Your task to perform on an android device: toggle data saver in the chrome app Image 0: 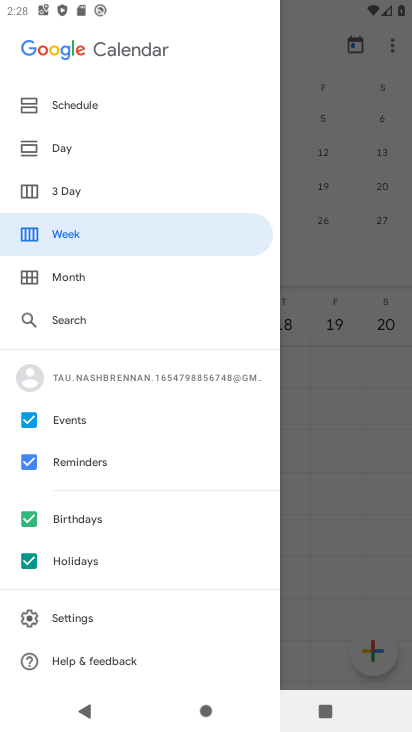
Step 0: press home button
Your task to perform on an android device: toggle data saver in the chrome app Image 1: 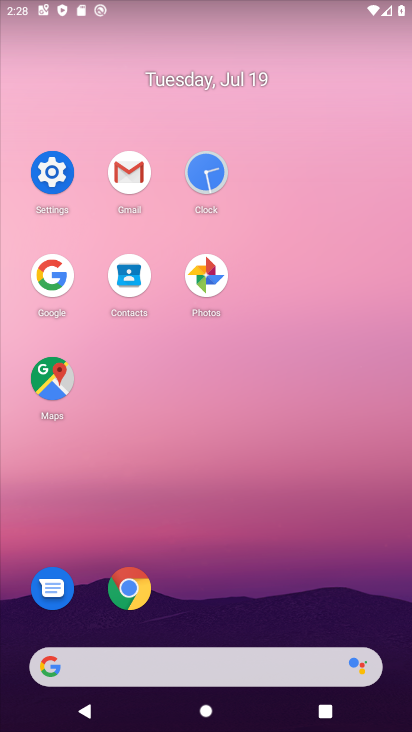
Step 1: click (123, 579)
Your task to perform on an android device: toggle data saver in the chrome app Image 2: 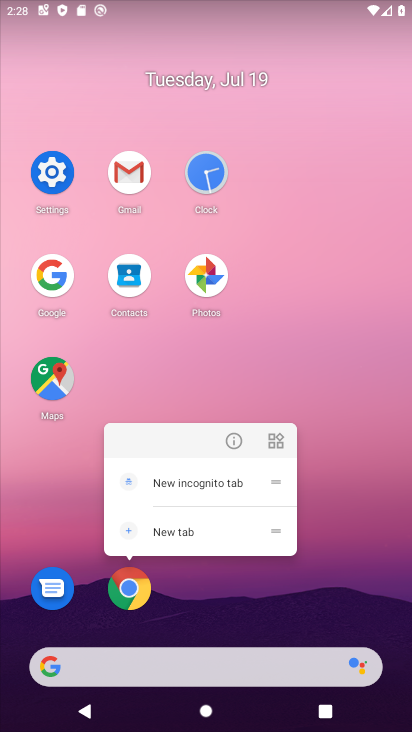
Step 2: click (130, 587)
Your task to perform on an android device: toggle data saver in the chrome app Image 3: 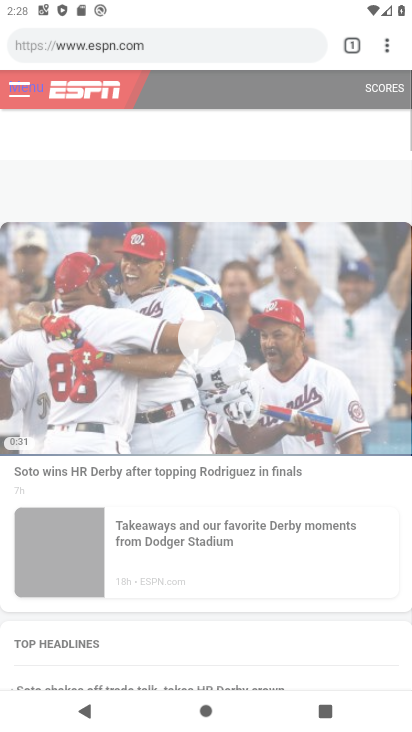
Step 3: click (390, 46)
Your task to perform on an android device: toggle data saver in the chrome app Image 4: 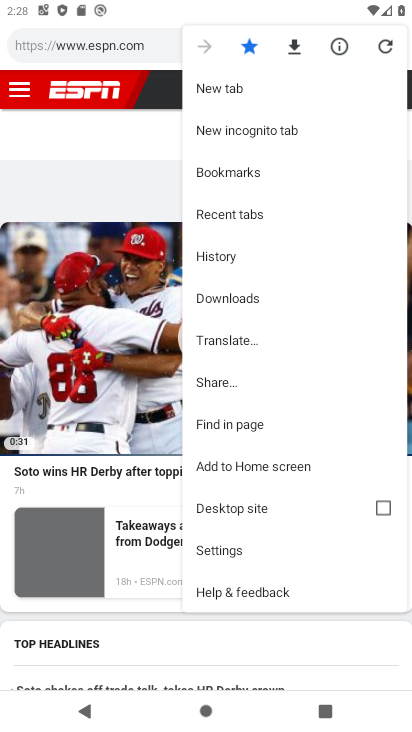
Step 4: click (256, 548)
Your task to perform on an android device: toggle data saver in the chrome app Image 5: 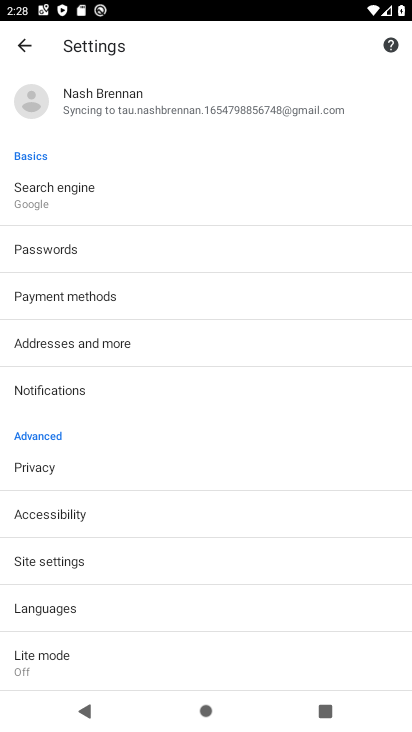
Step 5: click (122, 646)
Your task to perform on an android device: toggle data saver in the chrome app Image 6: 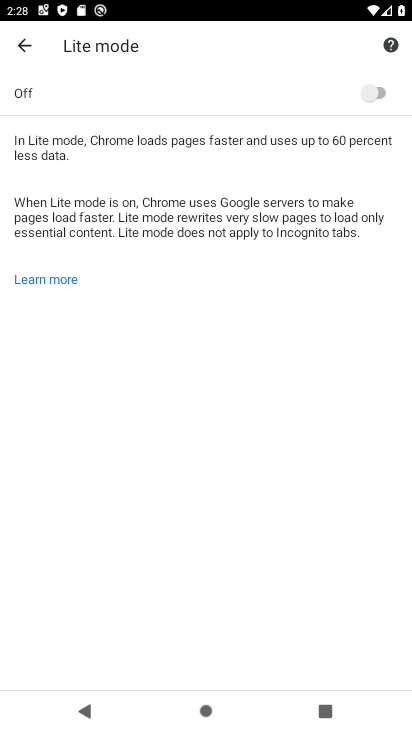
Step 6: click (359, 101)
Your task to perform on an android device: toggle data saver in the chrome app Image 7: 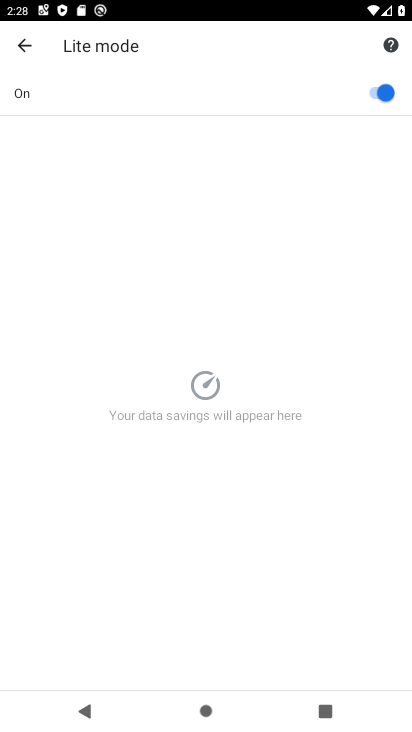
Step 7: task complete